Your task to perform on an android device: turn on bluetooth scan Image 0: 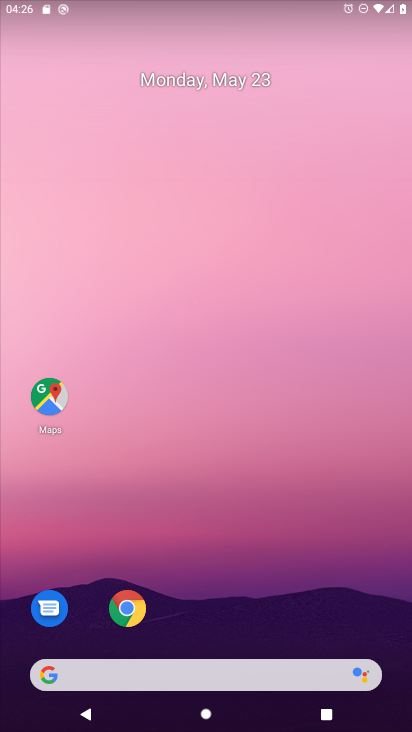
Step 0: drag from (221, 603) to (243, 171)
Your task to perform on an android device: turn on bluetooth scan Image 1: 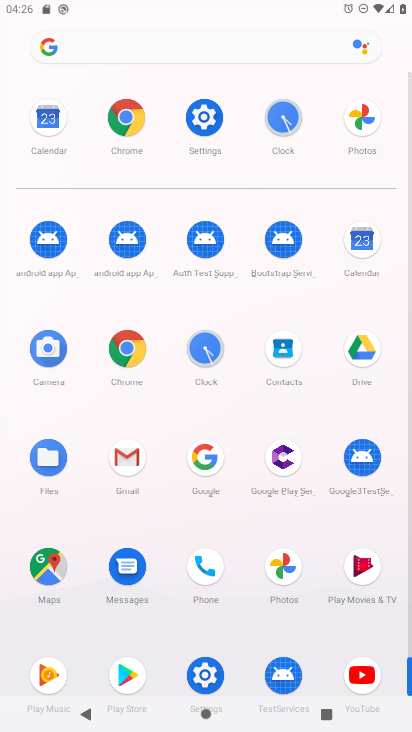
Step 1: click (205, 118)
Your task to perform on an android device: turn on bluetooth scan Image 2: 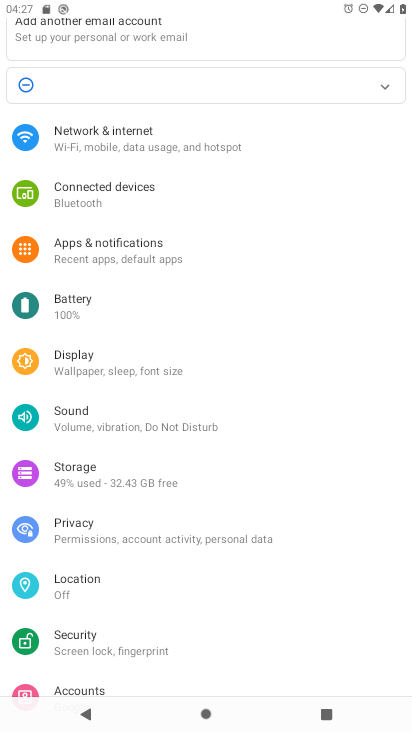
Step 2: click (70, 584)
Your task to perform on an android device: turn on bluetooth scan Image 3: 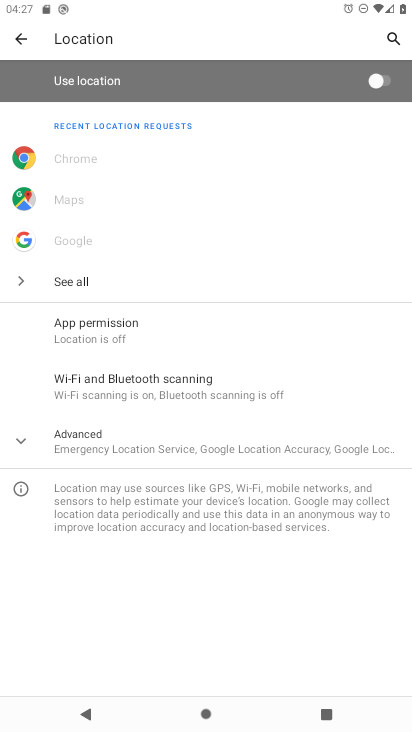
Step 3: click (126, 397)
Your task to perform on an android device: turn on bluetooth scan Image 4: 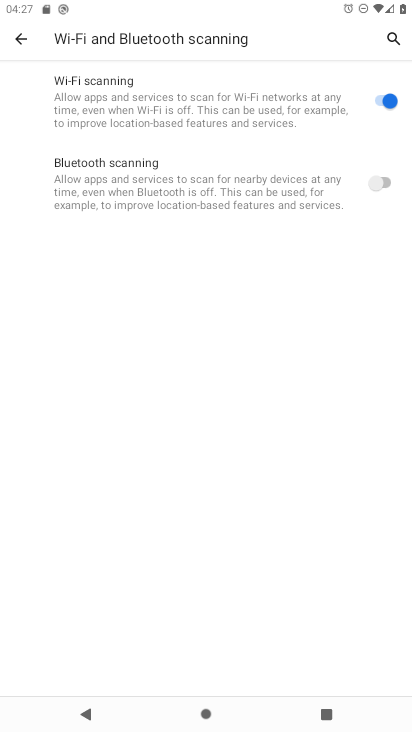
Step 4: click (384, 182)
Your task to perform on an android device: turn on bluetooth scan Image 5: 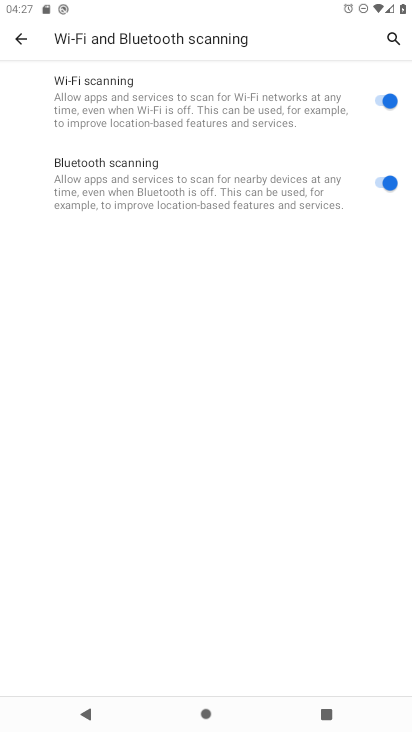
Step 5: task complete